Your task to perform on an android device: Open the calendar and show me this week's events? Image 0: 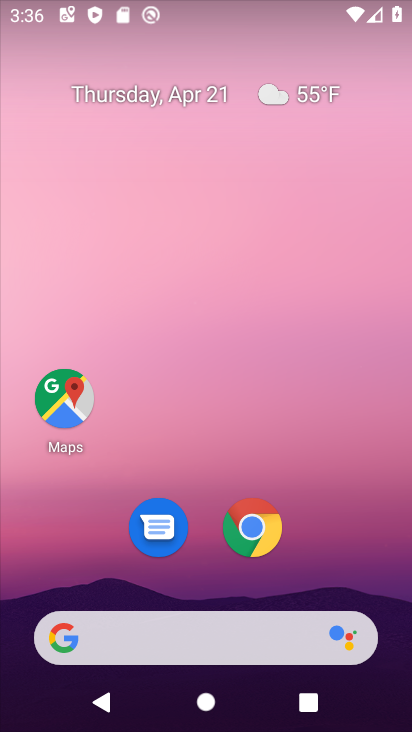
Step 0: drag from (378, 529) to (332, 73)
Your task to perform on an android device: Open the calendar and show me this week's events? Image 1: 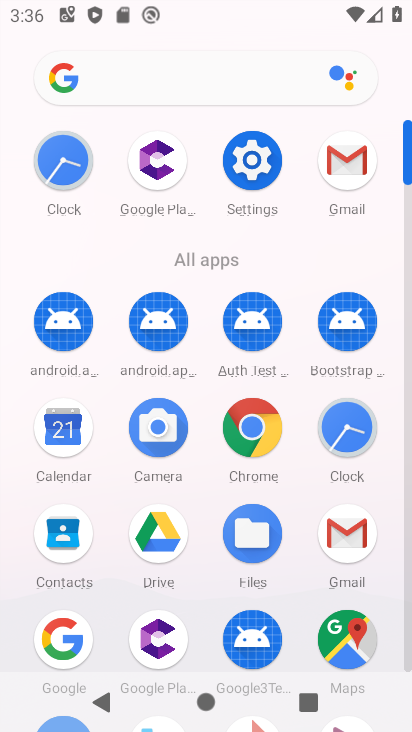
Step 1: click (74, 419)
Your task to perform on an android device: Open the calendar and show me this week's events? Image 2: 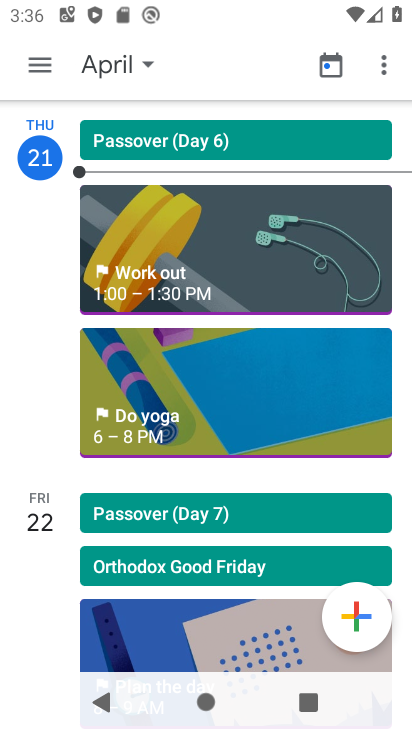
Step 2: click (31, 66)
Your task to perform on an android device: Open the calendar and show me this week's events? Image 3: 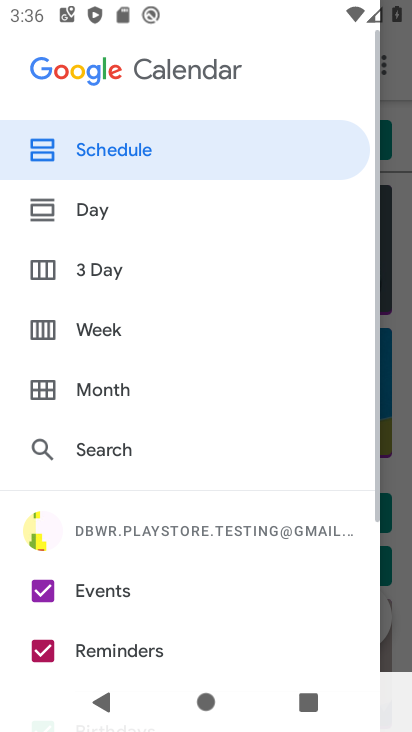
Step 3: drag from (178, 568) to (183, 249)
Your task to perform on an android device: Open the calendar and show me this week's events? Image 4: 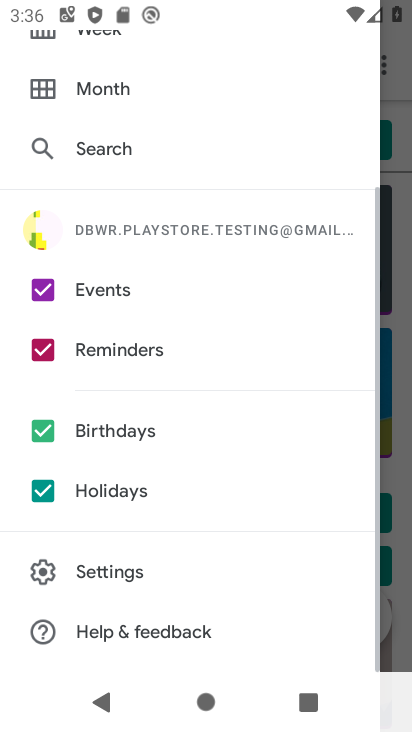
Step 4: click (44, 496)
Your task to perform on an android device: Open the calendar and show me this week's events? Image 5: 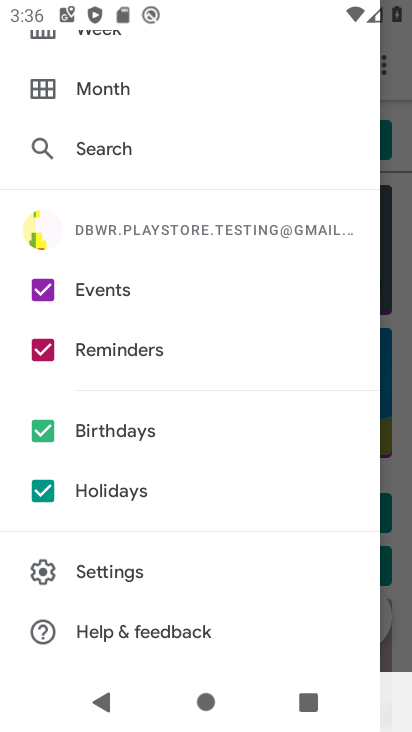
Step 5: click (44, 490)
Your task to perform on an android device: Open the calendar and show me this week's events? Image 6: 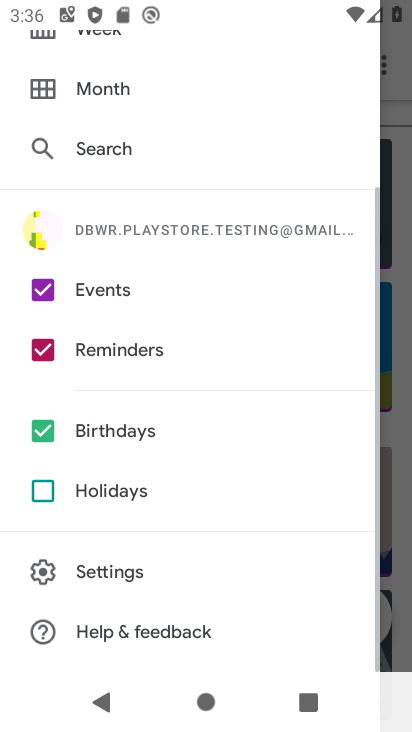
Step 6: click (47, 423)
Your task to perform on an android device: Open the calendar and show me this week's events? Image 7: 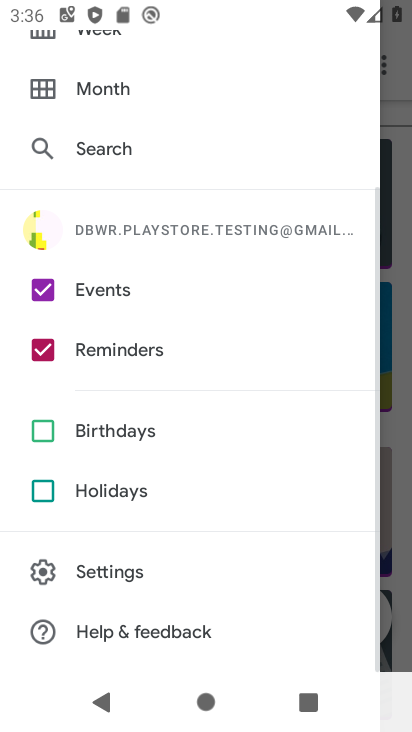
Step 7: click (47, 354)
Your task to perform on an android device: Open the calendar and show me this week's events? Image 8: 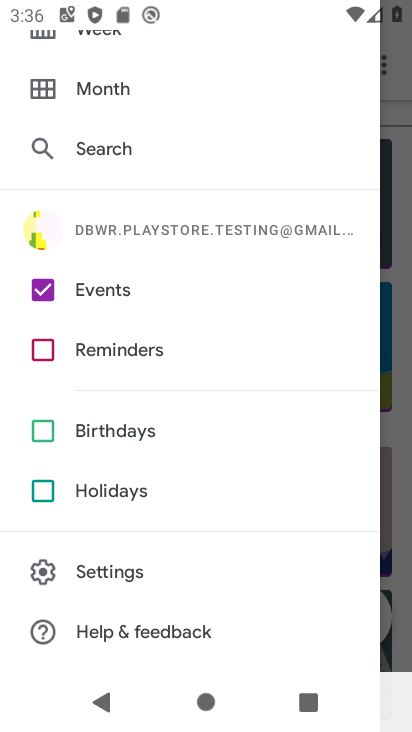
Step 8: drag from (256, 142) to (263, 462)
Your task to perform on an android device: Open the calendar and show me this week's events? Image 9: 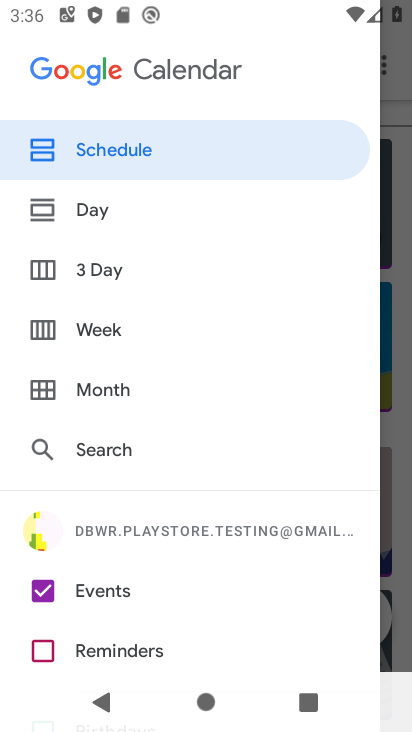
Step 9: click (168, 337)
Your task to perform on an android device: Open the calendar and show me this week's events? Image 10: 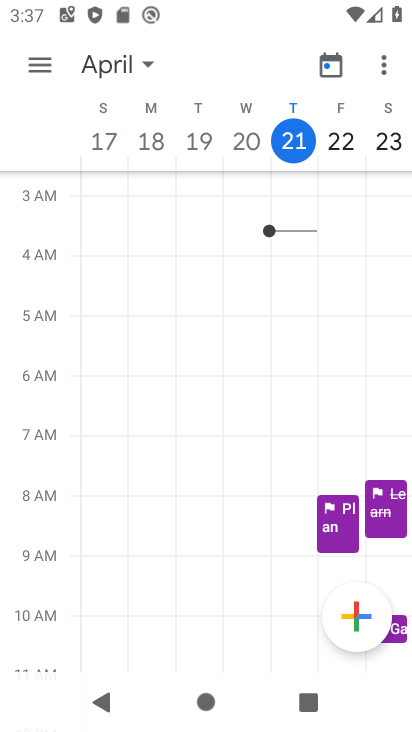
Step 10: task complete